Your task to perform on an android device: Open Wikipedia Image 0: 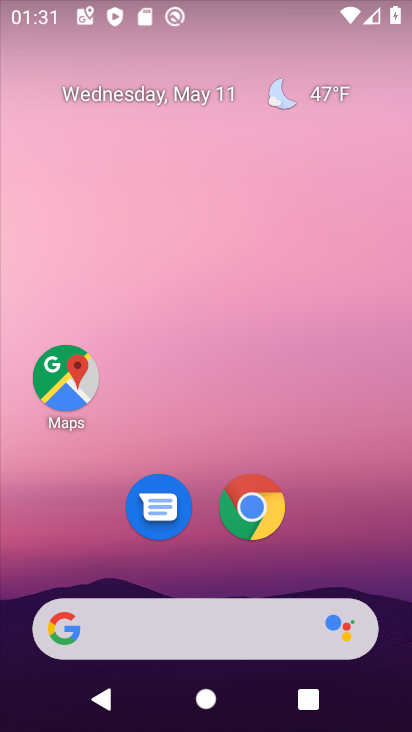
Step 0: click (258, 507)
Your task to perform on an android device: Open Wikipedia Image 1: 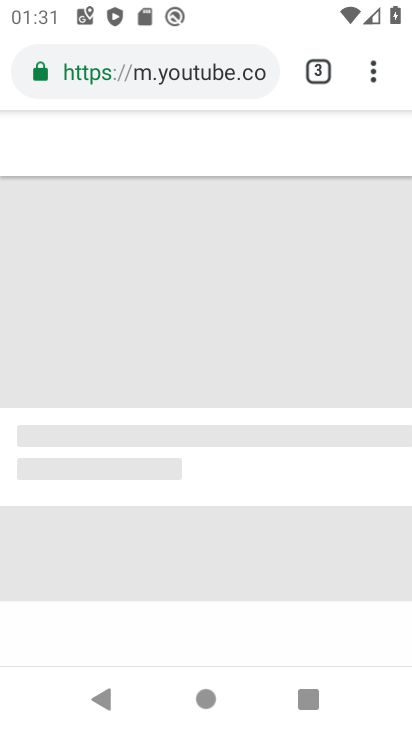
Step 1: click (368, 75)
Your task to perform on an android device: Open Wikipedia Image 2: 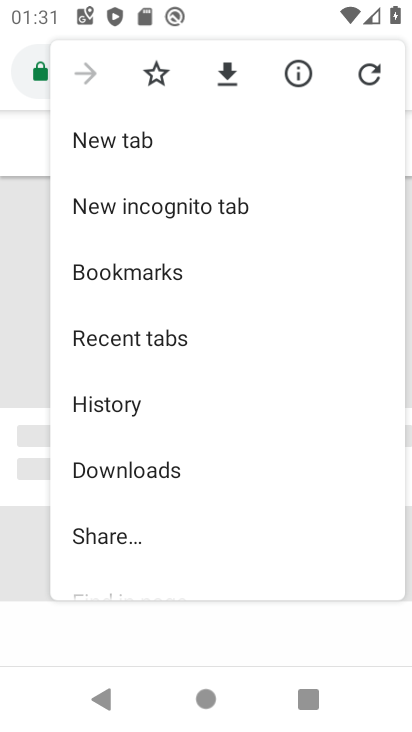
Step 2: click (124, 137)
Your task to perform on an android device: Open Wikipedia Image 3: 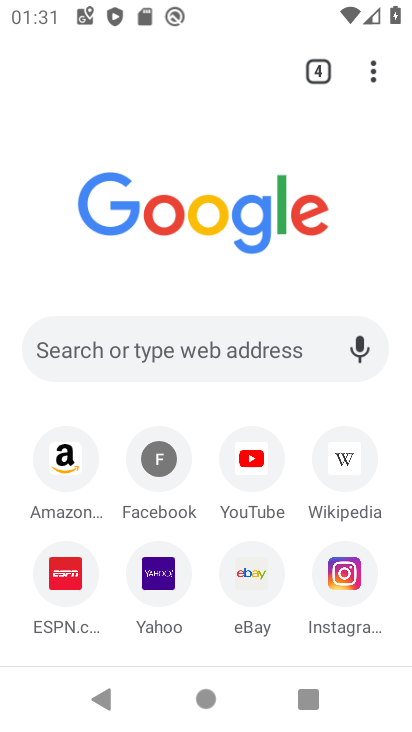
Step 3: click (339, 469)
Your task to perform on an android device: Open Wikipedia Image 4: 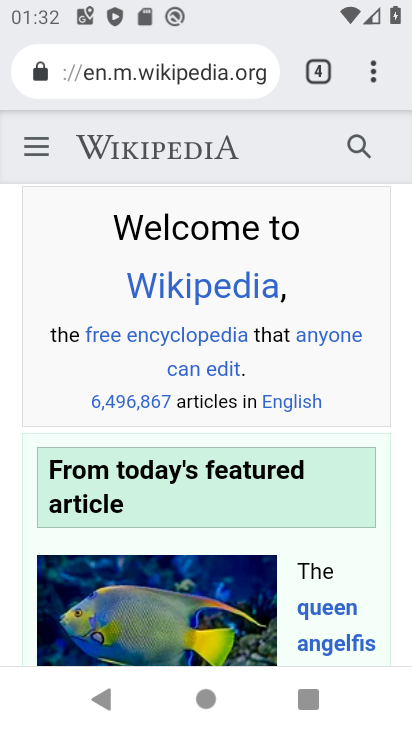
Step 4: task complete